Your task to perform on an android device: Set the phone to "Do not disturb". Image 0: 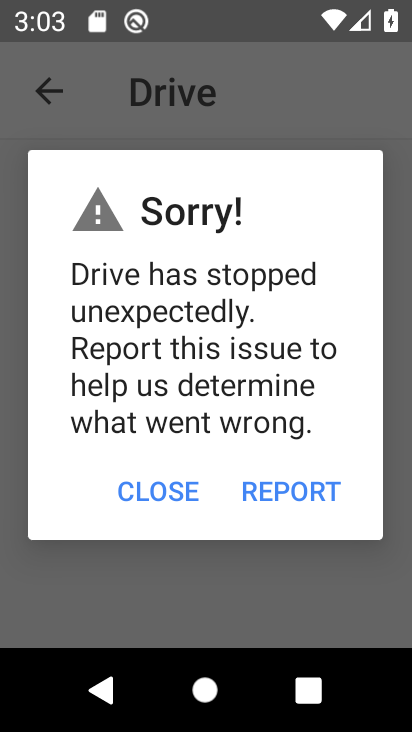
Step 0: press home button
Your task to perform on an android device: Set the phone to "Do not disturb". Image 1: 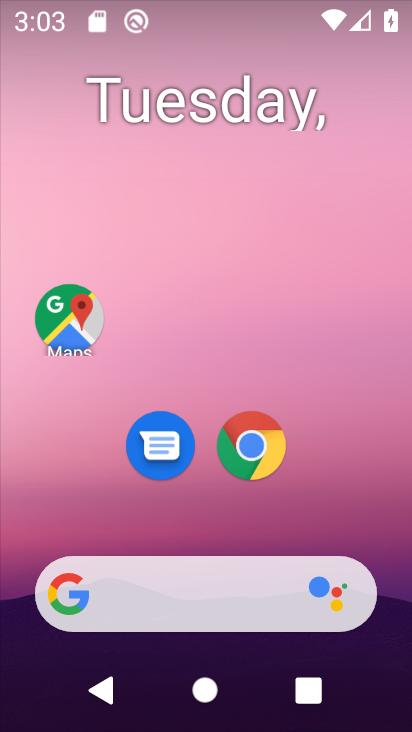
Step 1: drag from (379, 568) to (330, 16)
Your task to perform on an android device: Set the phone to "Do not disturb". Image 2: 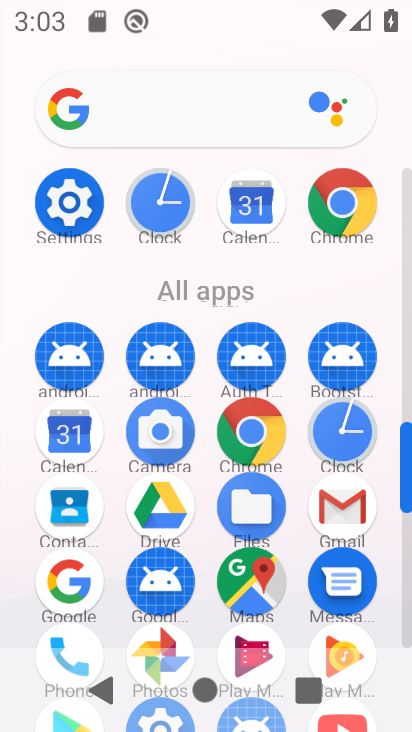
Step 2: click (71, 204)
Your task to perform on an android device: Set the phone to "Do not disturb". Image 3: 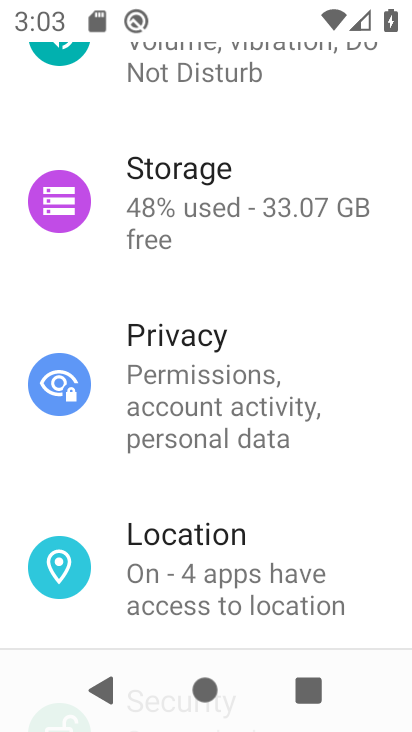
Step 3: drag from (302, 389) to (295, 555)
Your task to perform on an android device: Set the phone to "Do not disturb". Image 4: 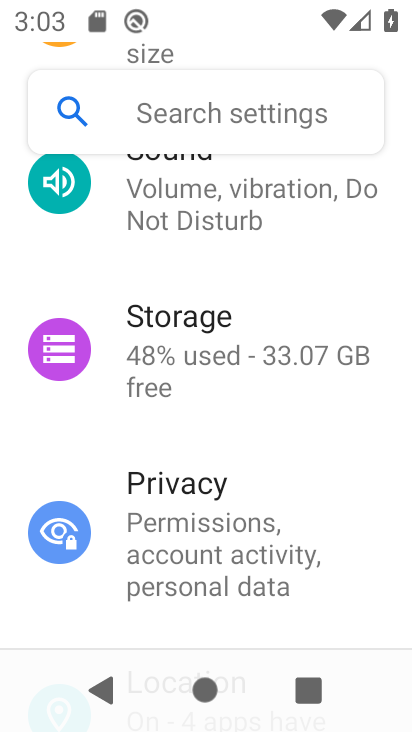
Step 4: drag from (291, 307) to (287, 512)
Your task to perform on an android device: Set the phone to "Do not disturb". Image 5: 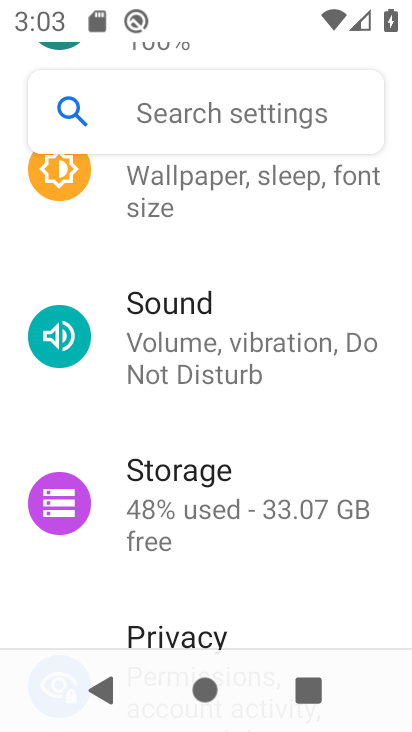
Step 5: click (183, 359)
Your task to perform on an android device: Set the phone to "Do not disturb". Image 6: 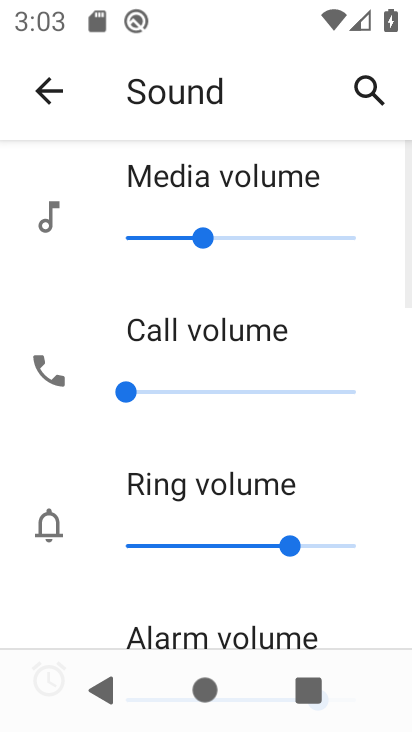
Step 6: drag from (337, 602) to (296, 90)
Your task to perform on an android device: Set the phone to "Do not disturb". Image 7: 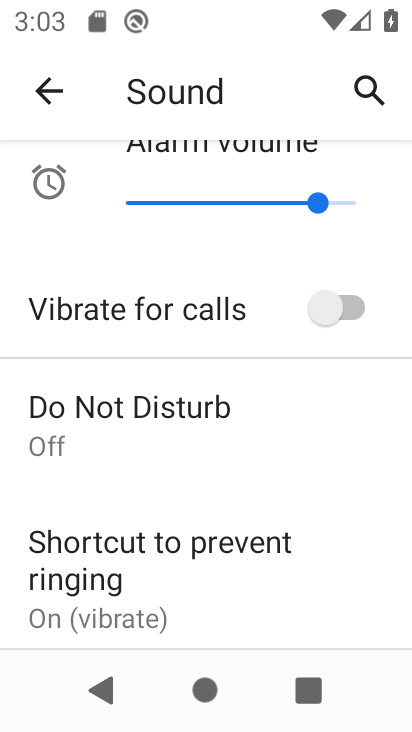
Step 7: click (82, 422)
Your task to perform on an android device: Set the phone to "Do not disturb". Image 8: 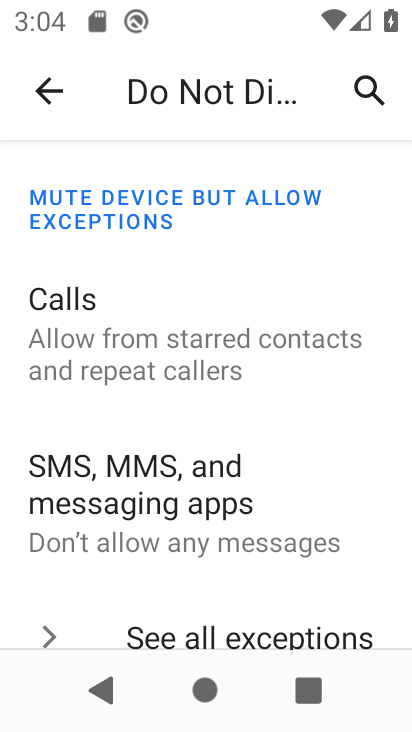
Step 8: drag from (303, 560) to (258, 192)
Your task to perform on an android device: Set the phone to "Do not disturb". Image 9: 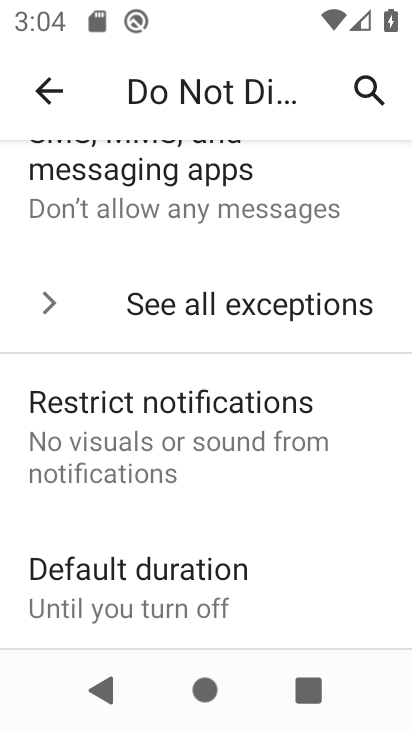
Step 9: drag from (222, 446) to (164, 115)
Your task to perform on an android device: Set the phone to "Do not disturb". Image 10: 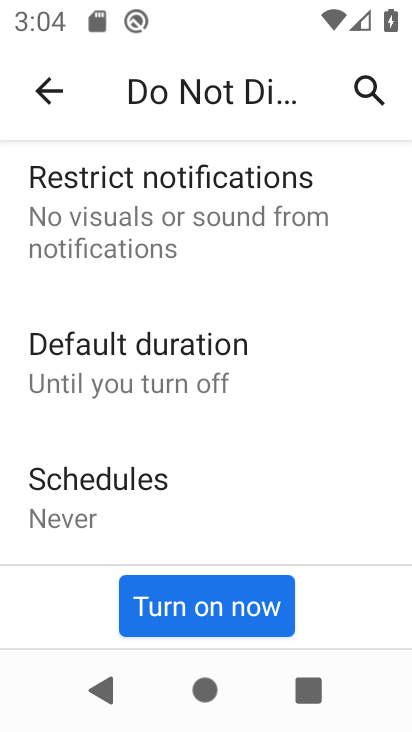
Step 10: click (178, 601)
Your task to perform on an android device: Set the phone to "Do not disturb". Image 11: 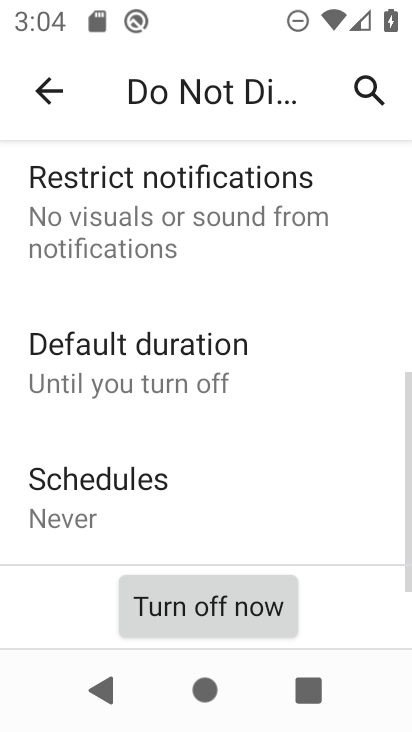
Step 11: task complete